Your task to perform on an android device: turn on improve location accuracy Image 0: 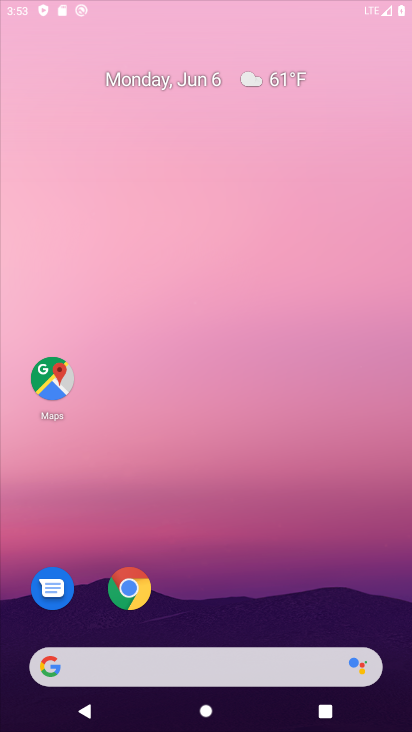
Step 0: click (9, 74)
Your task to perform on an android device: turn on improve location accuracy Image 1: 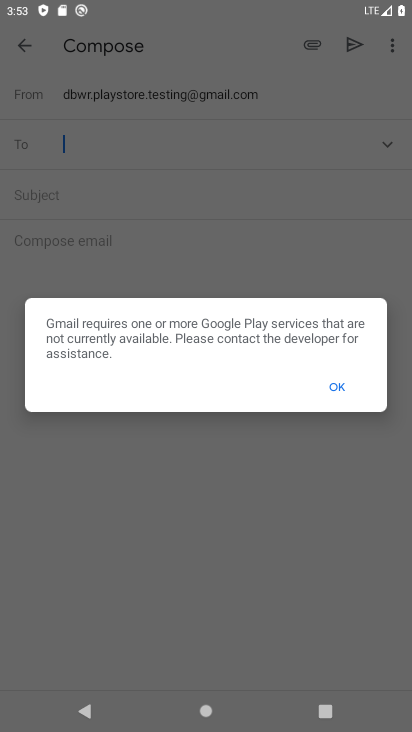
Step 1: click (333, 390)
Your task to perform on an android device: turn on improve location accuracy Image 2: 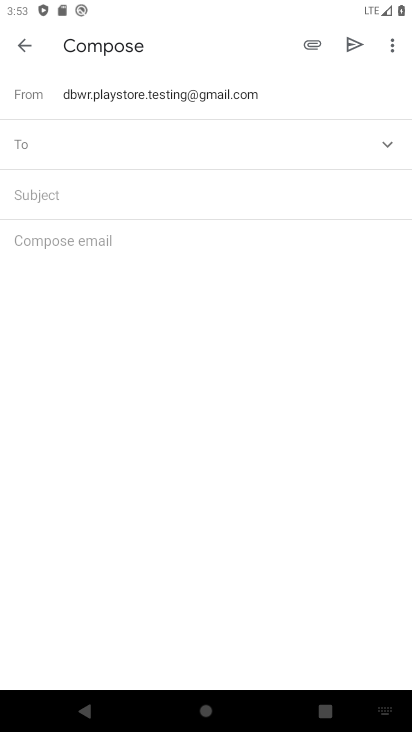
Step 2: click (16, 46)
Your task to perform on an android device: turn on improve location accuracy Image 3: 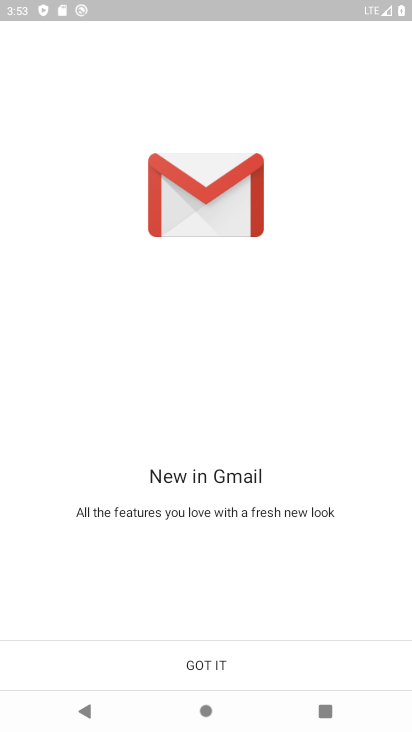
Step 3: press back button
Your task to perform on an android device: turn on improve location accuracy Image 4: 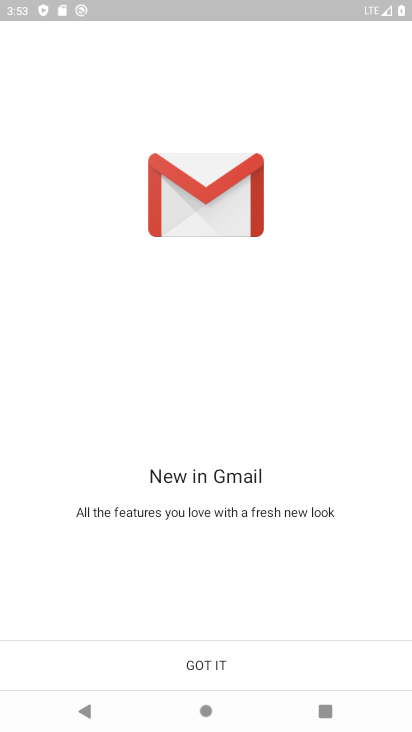
Step 4: click (225, 654)
Your task to perform on an android device: turn on improve location accuracy Image 5: 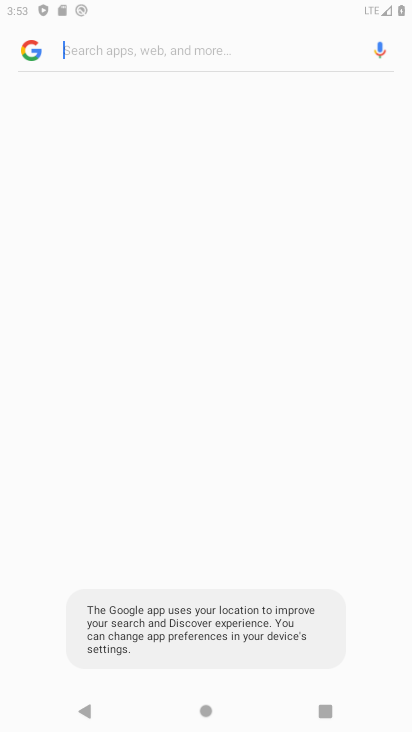
Step 5: drag from (265, 666) to (223, 134)
Your task to perform on an android device: turn on improve location accuracy Image 6: 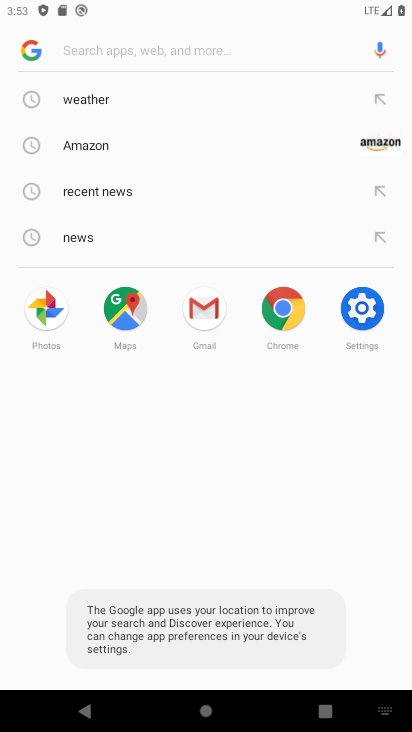
Step 6: press back button
Your task to perform on an android device: turn on improve location accuracy Image 7: 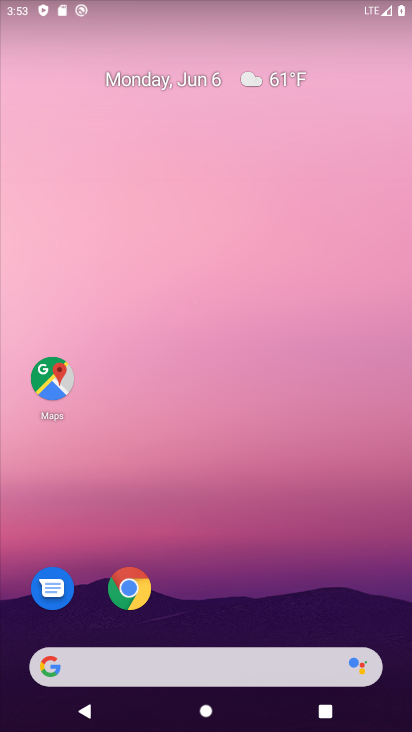
Step 7: press home button
Your task to perform on an android device: turn on improve location accuracy Image 8: 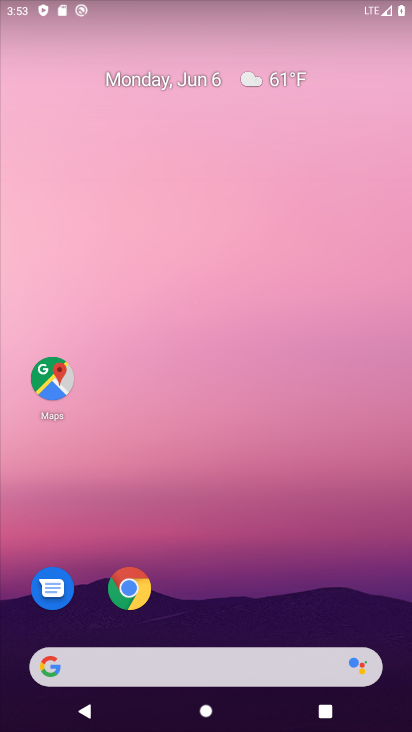
Step 8: drag from (271, 731) to (210, 79)
Your task to perform on an android device: turn on improve location accuracy Image 9: 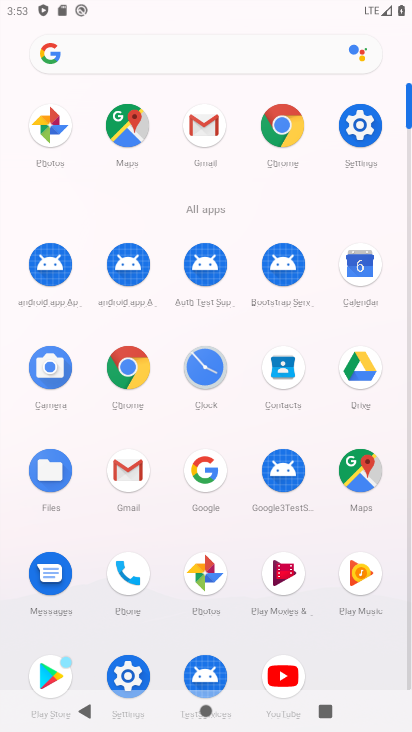
Step 9: click (358, 119)
Your task to perform on an android device: turn on improve location accuracy Image 10: 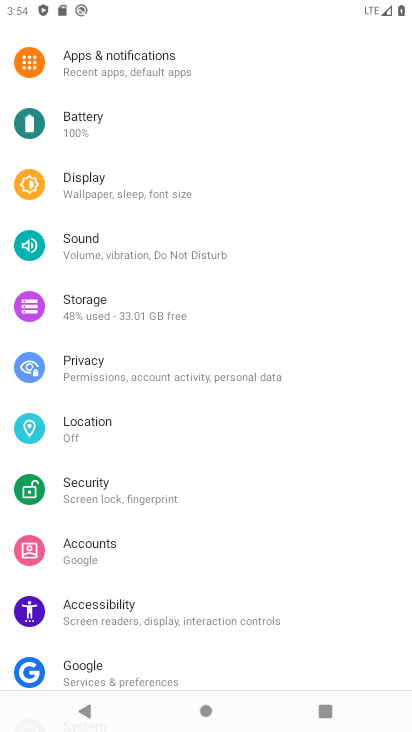
Step 10: click (93, 415)
Your task to perform on an android device: turn on improve location accuracy Image 11: 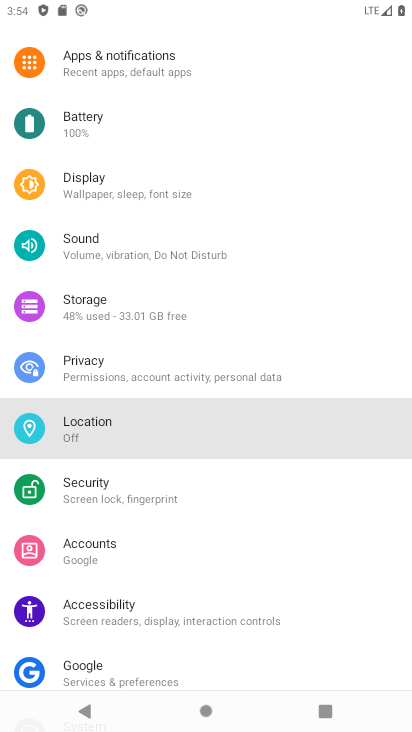
Step 11: click (93, 415)
Your task to perform on an android device: turn on improve location accuracy Image 12: 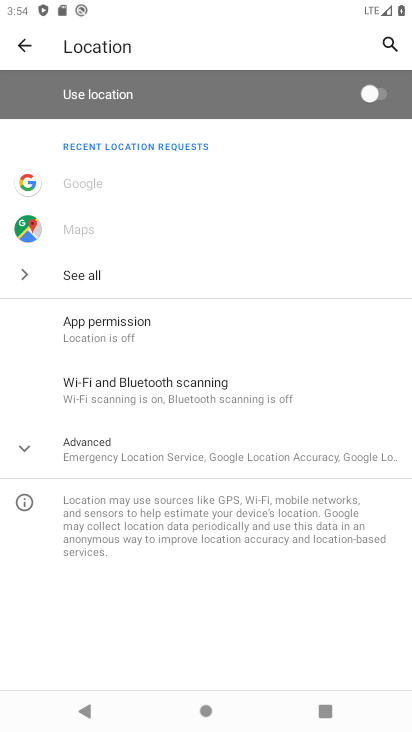
Step 12: click (377, 88)
Your task to perform on an android device: turn on improve location accuracy Image 13: 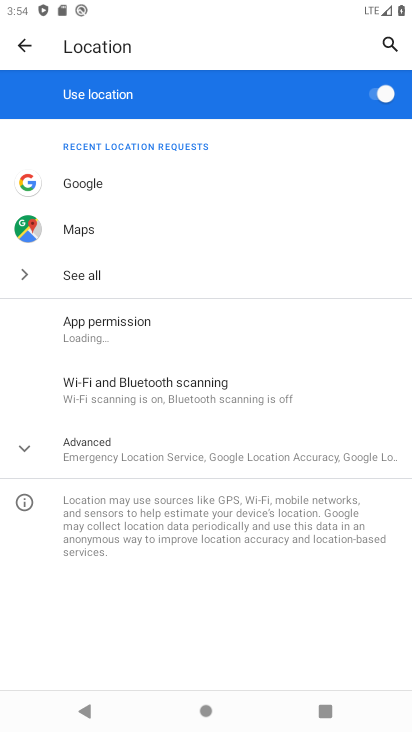
Step 13: task complete